Your task to perform on an android device: open device folders in google photos Image 0: 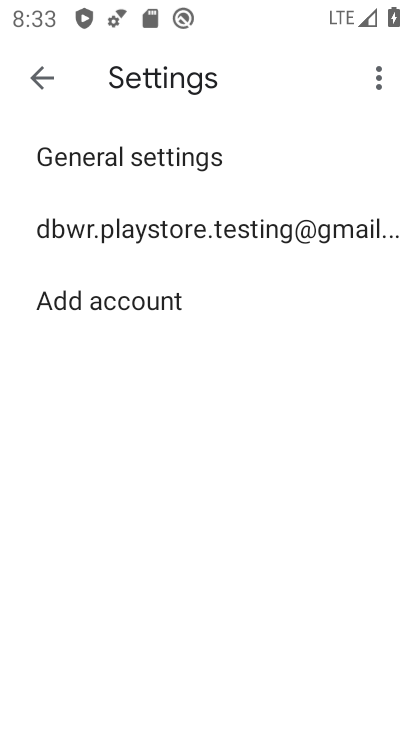
Step 0: press home button
Your task to perform on an android device: open device folders in google photos Image 1: 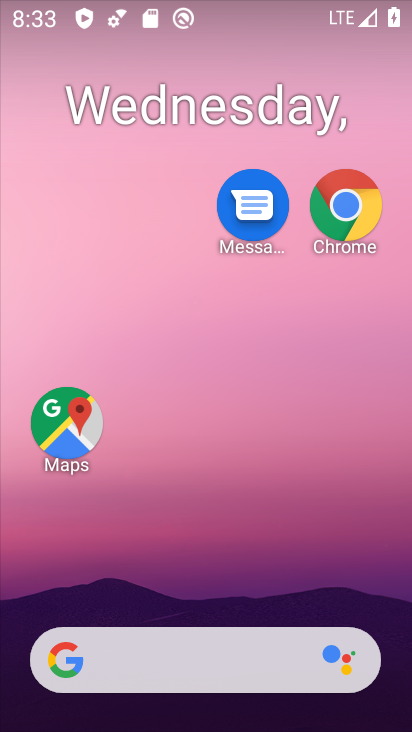
Step 1: drag from (201, 596) to (226, 75)
Your task to perform on an android device: open device folders in google photos Image 2: 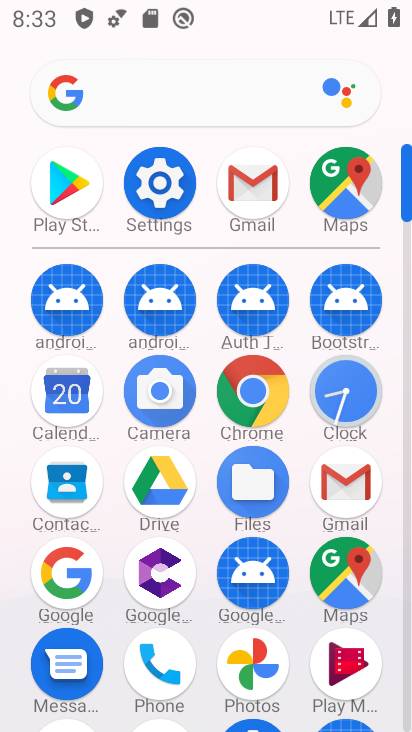
Step 2: click (249, 658)
Your task to perform on an android device: open device folders in google photos Image 3: 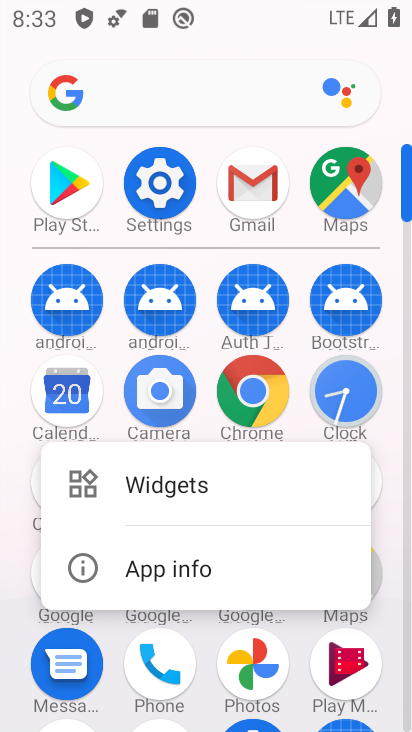
Step 3: click (120, 562)
Your task to perform on an android device: open device folders in google photos Image 4: 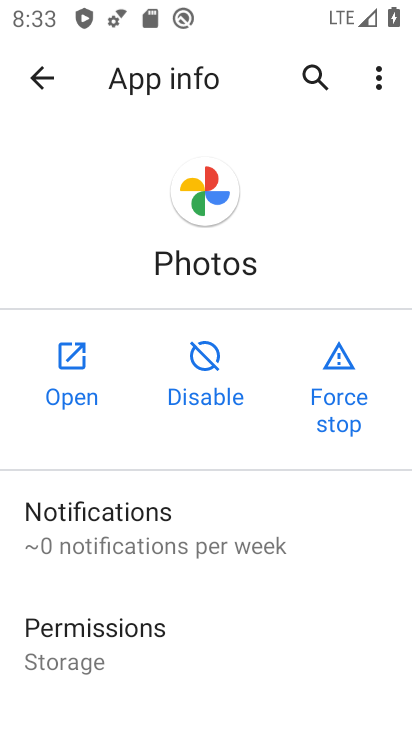
Step 4: click (74, 369)
Your task to perform on an android device: open device folders in google photos Image 5: 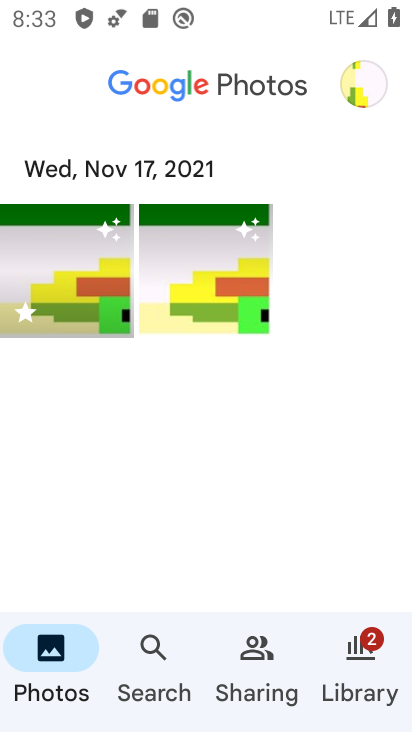
Step 5: click (355, 646)
Your task to perform on an android device: open device folders in google photos Image 6: 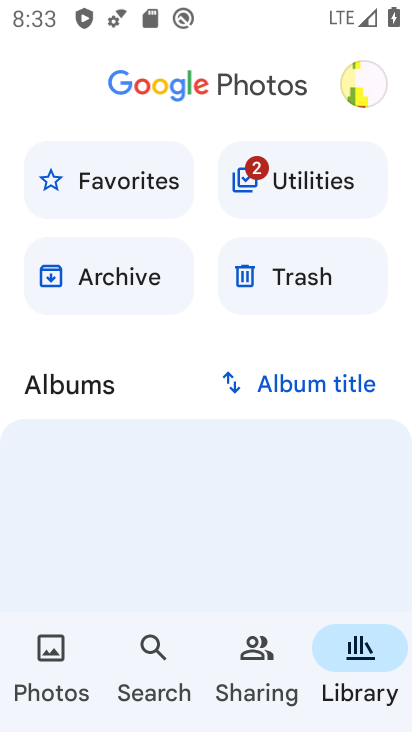
Step 6: click (354, 90)
Your task to perform on an android device: open device folders in google photos Image 7: 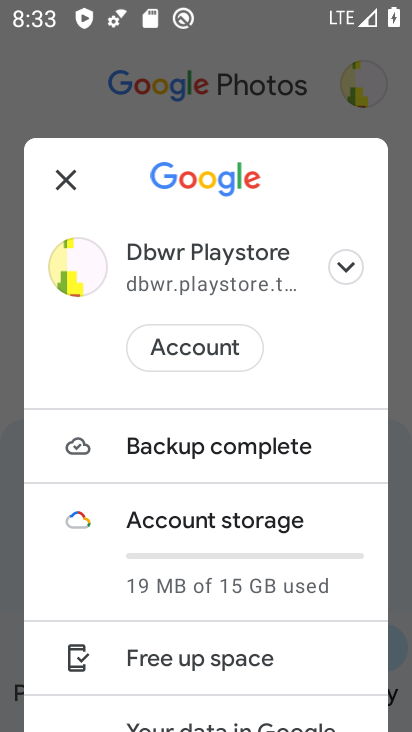
Step 7: task complete